Your task to perform on an android device: set default search engine in the chrome app Image 0: 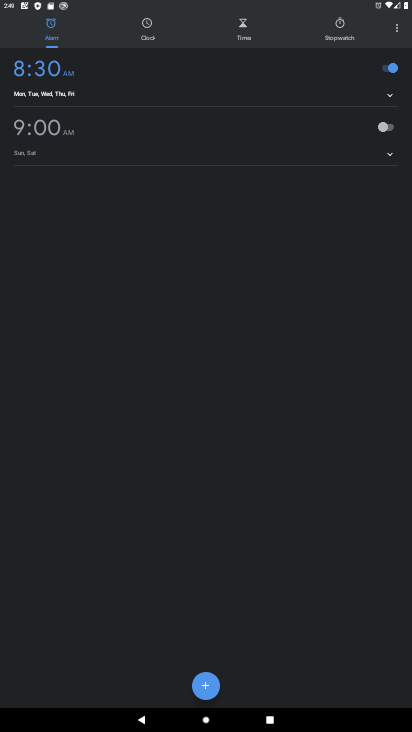
Step 0: press home button
Your task to perform on an android device: set default search engine in the chrome app Image 1: 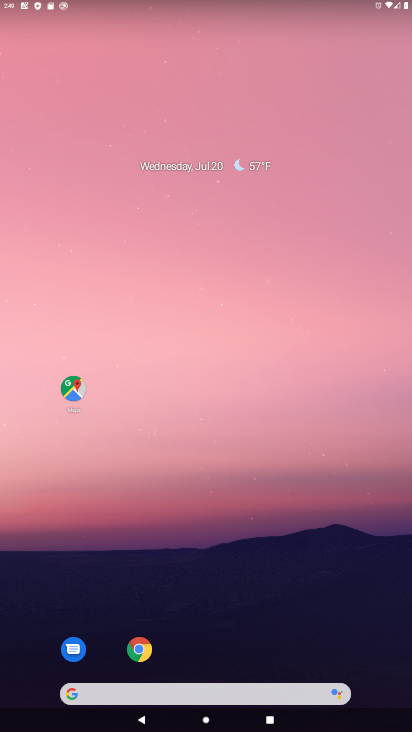
Step 1: click (147, 650)
Your task to perform on an android device: set default search engine in the chrome app Image 2: 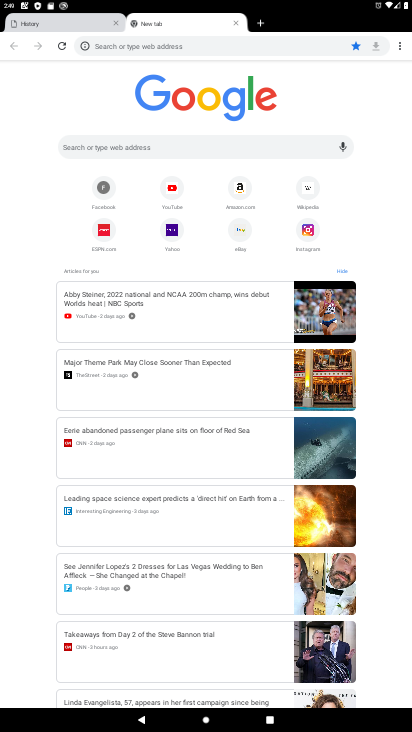
Step 2: click (400, 51)
Your task to perform on an android device: set default search engine in the chrome app Image 3: 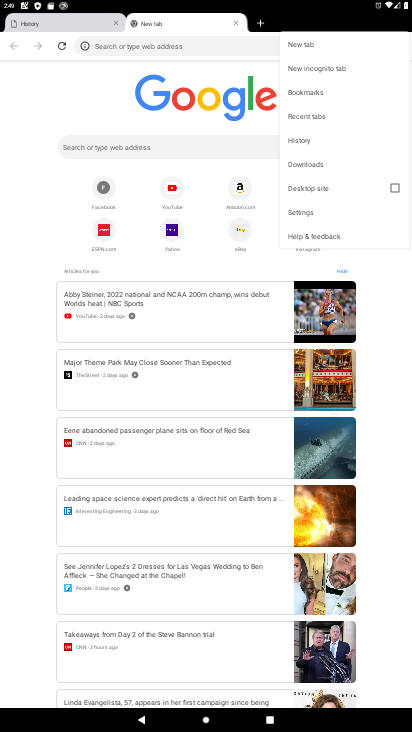
Step 3: click (302, 221)
Your task to perform on an android device: set default search engine in the chrome app Image 4: 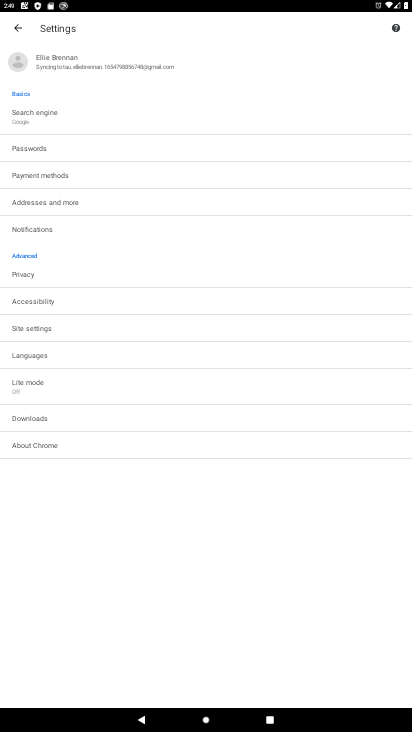
Step 4: click (64, 122)
Your task to perform on an android device: set default search engine in the chrome app Image 5: 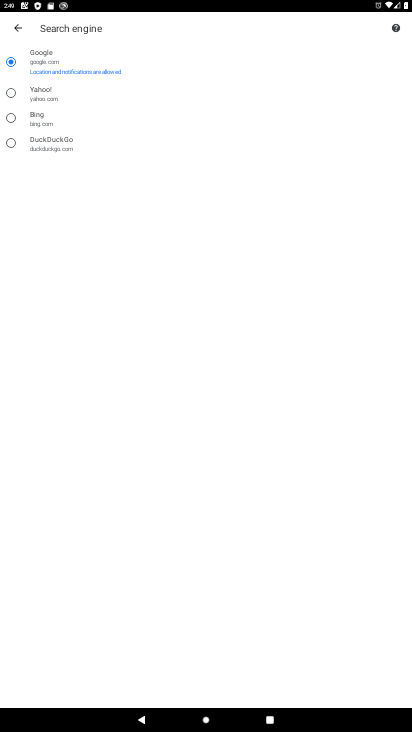
Step 5: click (52, 139)
Your task to perform on an android device: set default search engine in the chrome app Image 6: 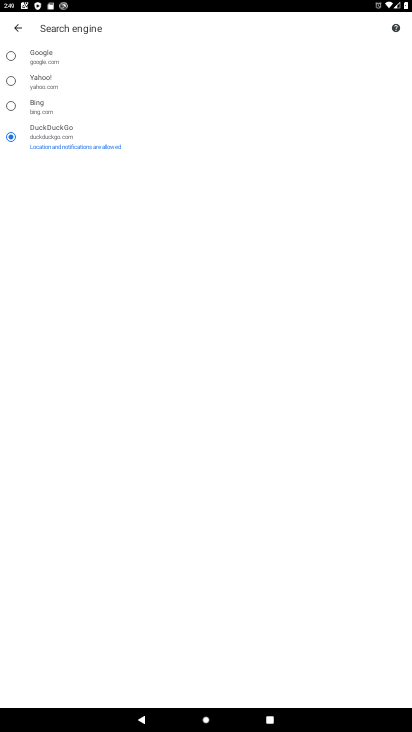
Step 6: task complete